Your task to perform on an android device: open chrome privacy settings Image 0: 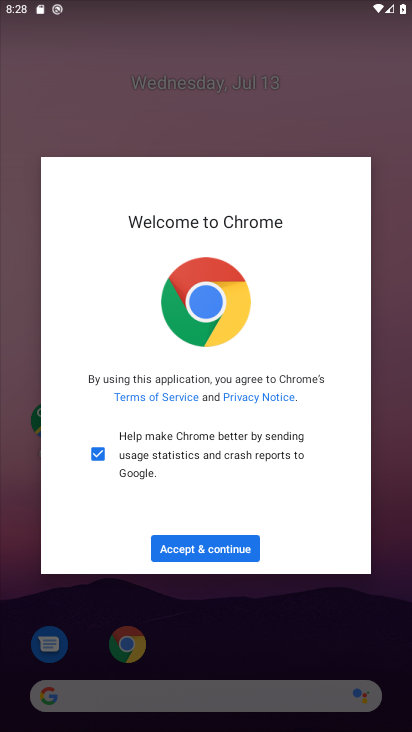
Step 0: click (218, 549)
Your task to perform on an android device: open chrome privacy settings Image 1: 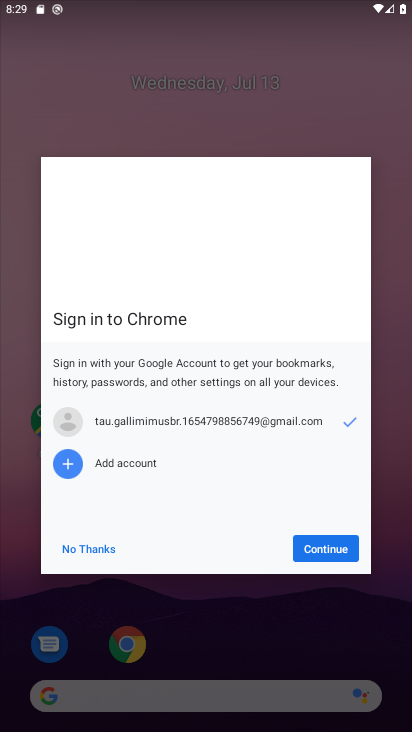
Step 1: click (333, 547)
Your task to perform on an android device: open chrome privacy settings Image 2: 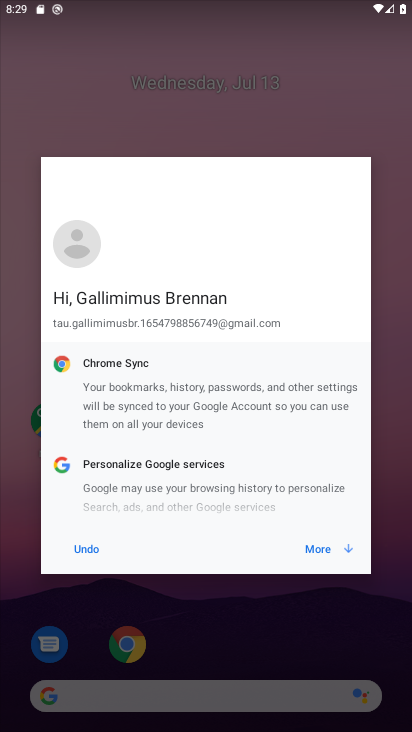
Step 2: click (333, 547)
Your task to perform on an android device: open chrome privacy settings Image 3: 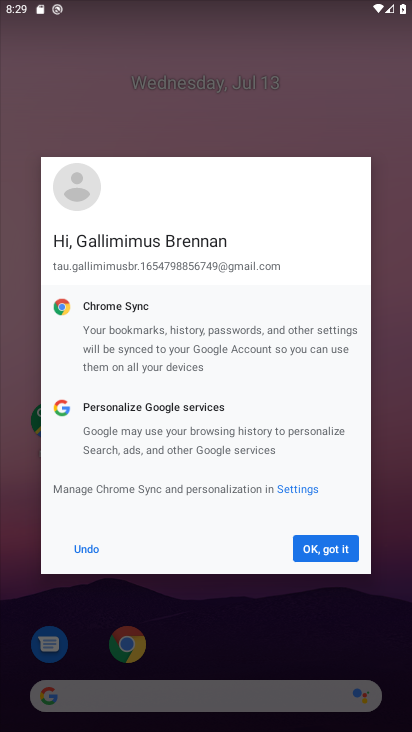
Step 3: click (333, 547)
Your task to perform on an android device: open chrome privacy settings Image 4: 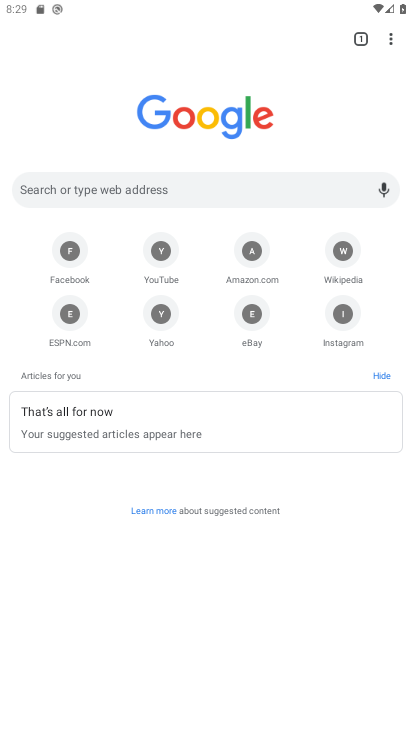
Step 4: click (387, 45)
Your task to perform on an android device: open chrome privacy settings Image 5: 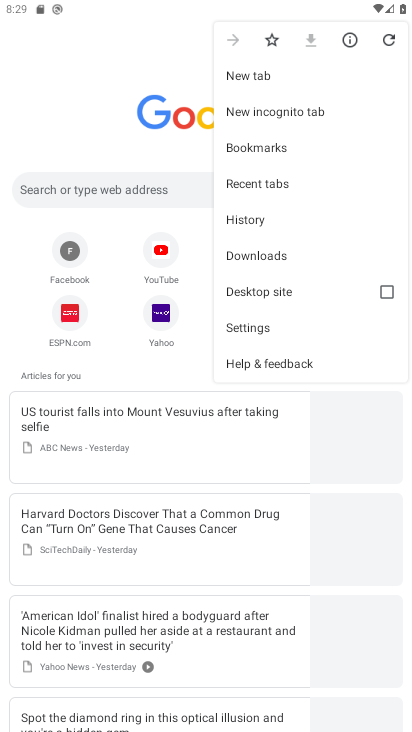
Step 5: click (290, 322)
Your task to perform on an android device: open chrome privacy settings Image 6: 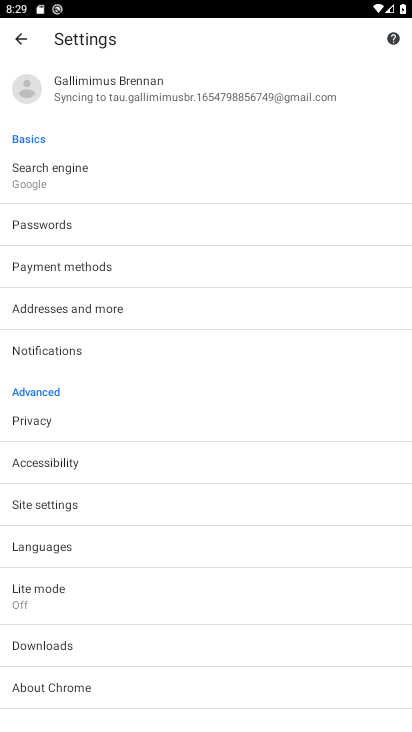
Step 6: click (24, 423)
Your task to perform on an android device: open chrome privacy settings Image 7: 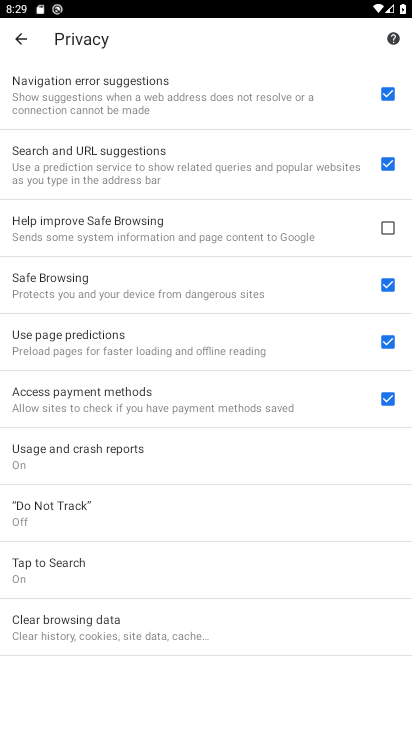
Step 7: task complete